Your task to perform on an android device: open app "Pandora - Music & Podcasts" Image 0: 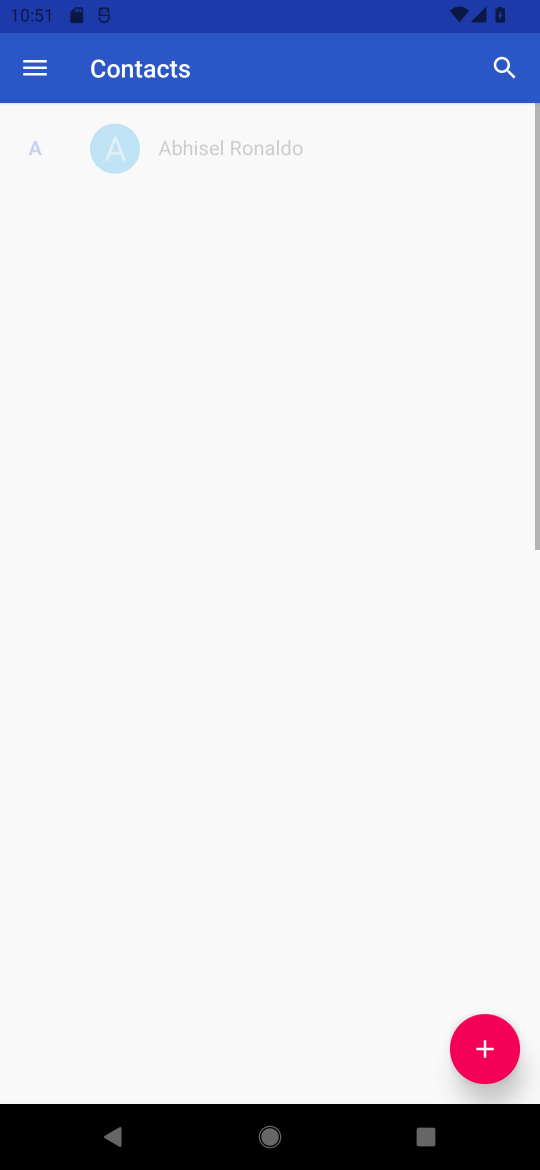
Step 0: press home button
Your task to perform on an android device: open app "Pandora - Music & Podcasts" Image 1: 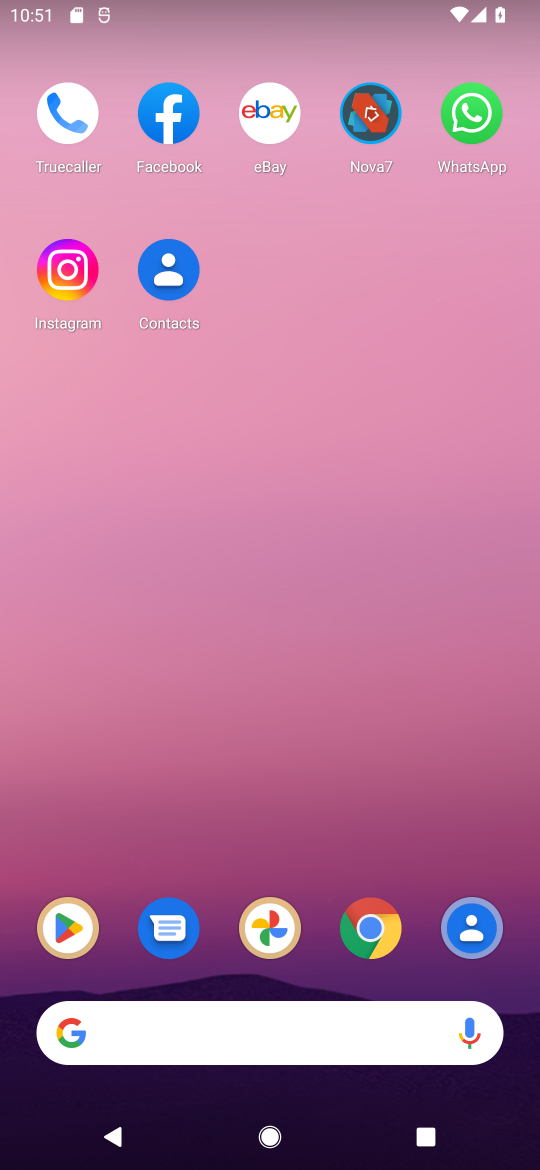
Step 1: click (62, 929)
Your task to perform on an android device: open app "Pandora - Music & Podcasts" Image 2: 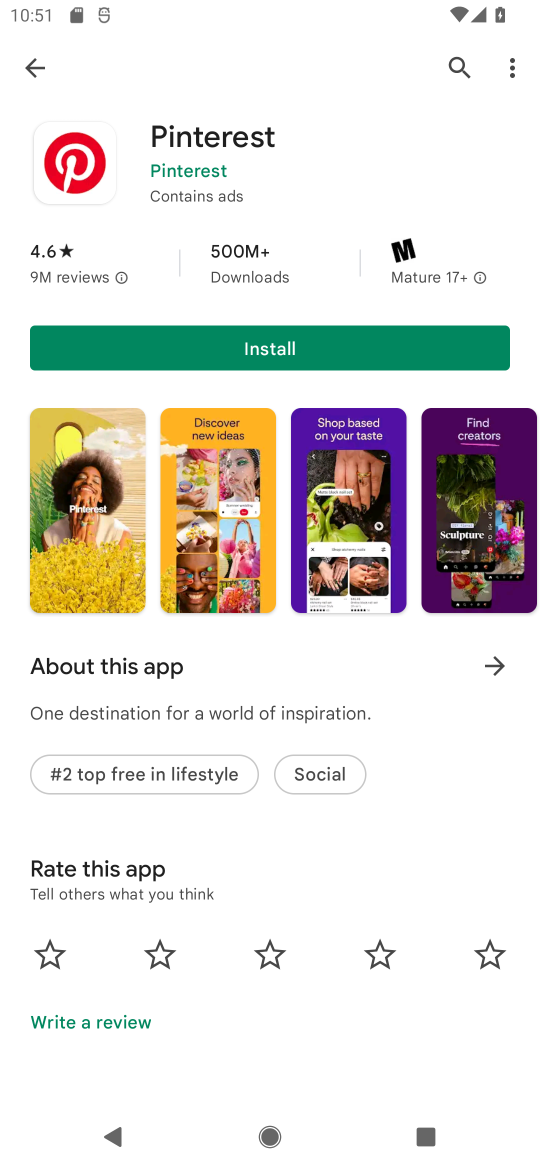
Step 2: click (460, 70)
Your task to perform on an android device: open app "Pandora - Music & Podcasts" Image 3: 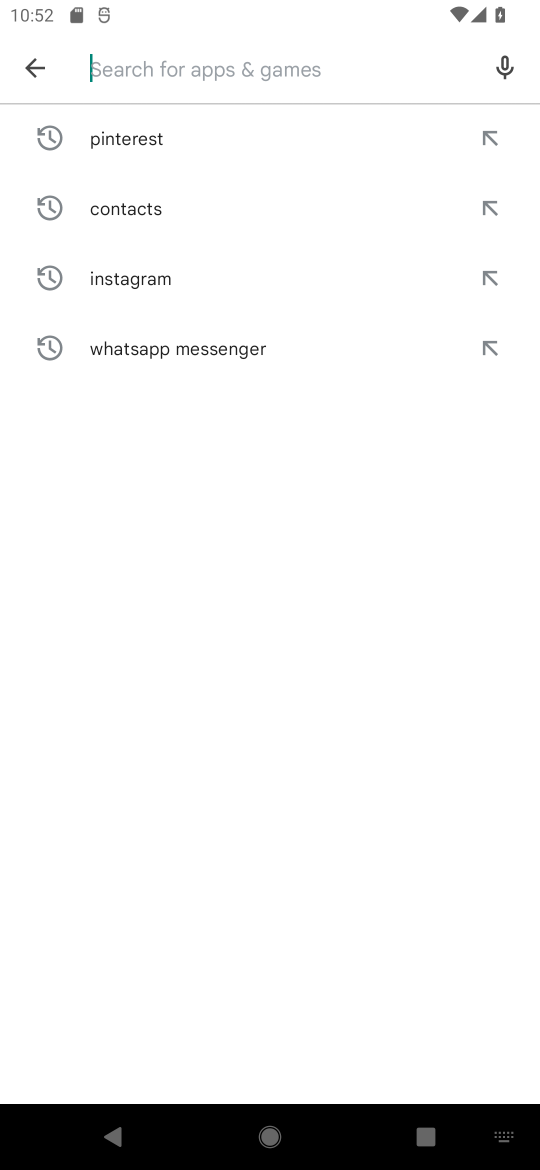
Step 3: type "pandora - music & podcasts"
Your task to perform on an android device: open app "Pandora - Music & Podcasts" Image 4: 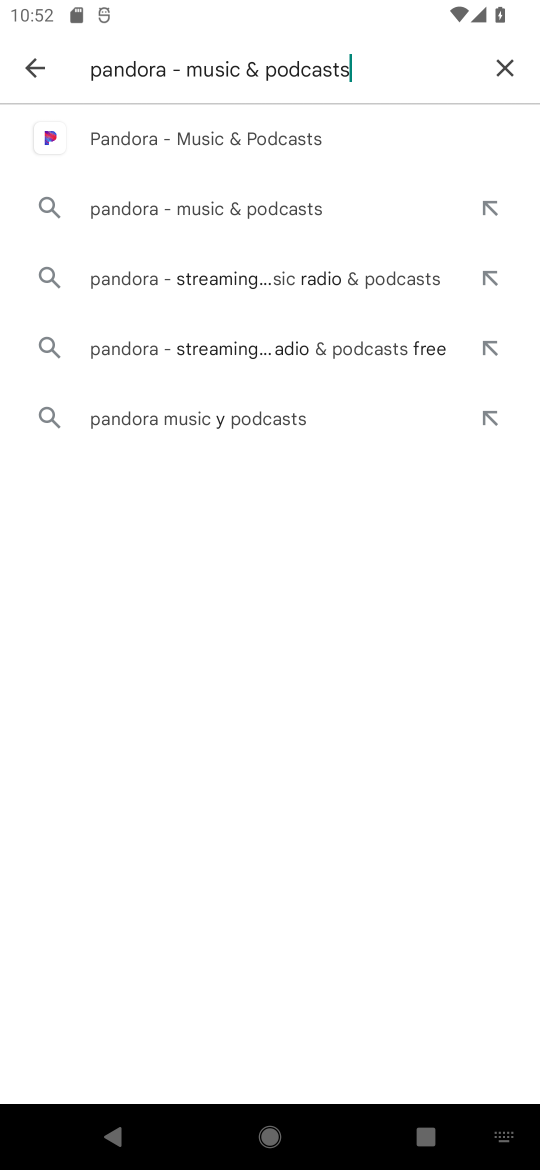
Step 4: click (278, 149)
Your task to perform on an android device: open app "Pandora - Music & Podcasts" Image 5: 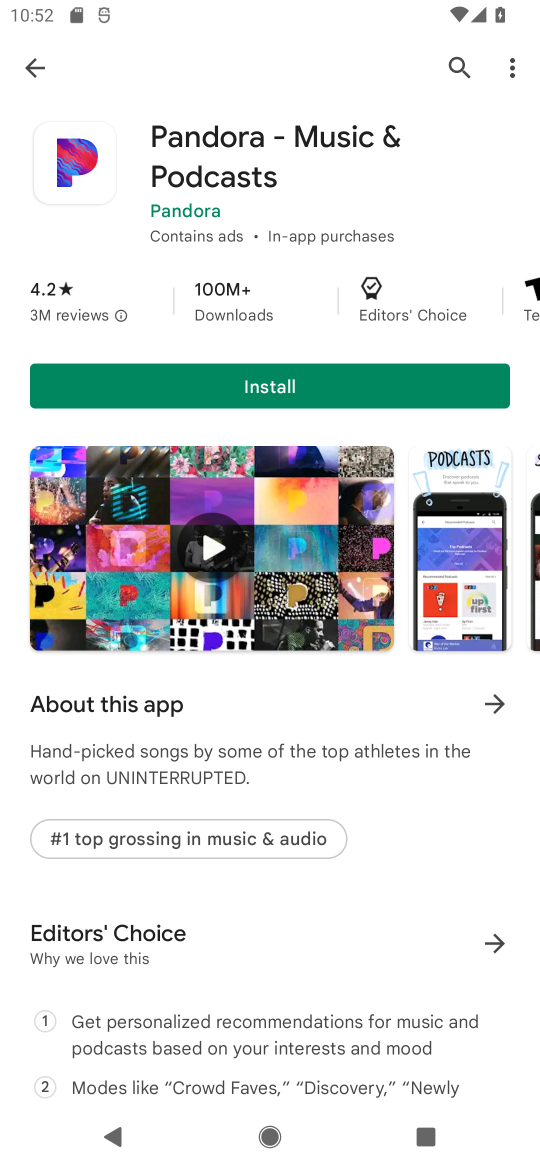
Step 5: task complete